Your task to perform on an android device: turn off smart reply in the gmail app Image 0: 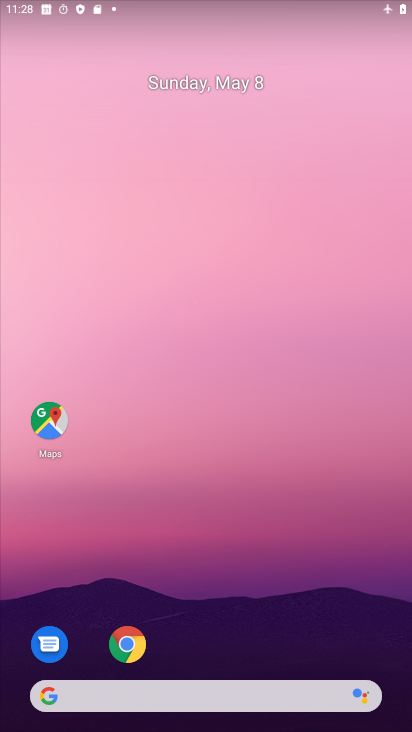
Step 0: drag from (180, 591) to (193, 192)
Your task to perform on an android device: turn off smart reply in the gmail app Image 1: 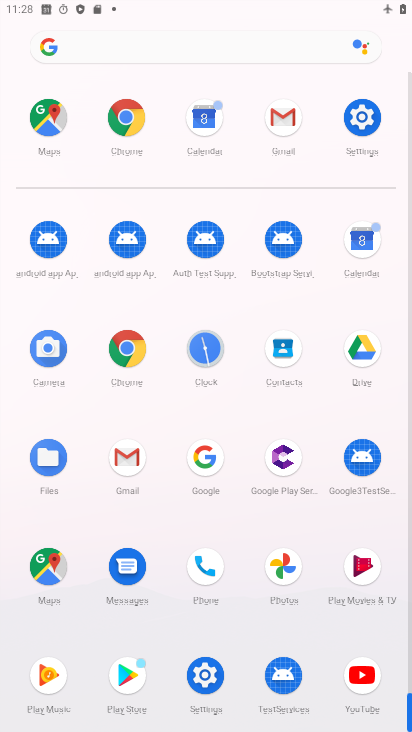
Step 1: click (136, 453)
Your task to perform on an android device: turn off smart reply in the gmail app Image 2: 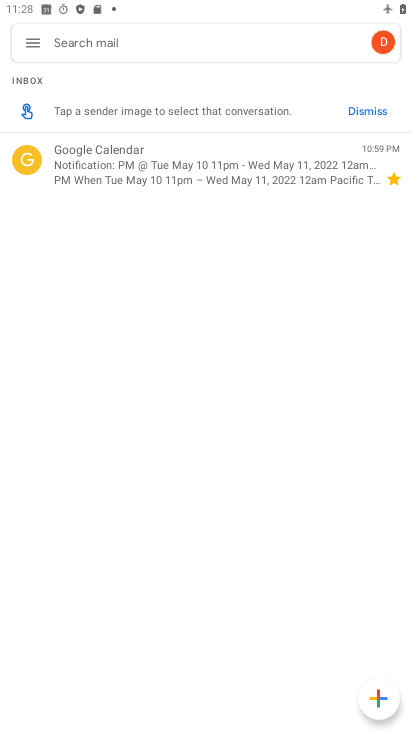
Step 2: click (39, 41)
Your task to perform on an android device: turn off smart reply in the gmail app Image 3: 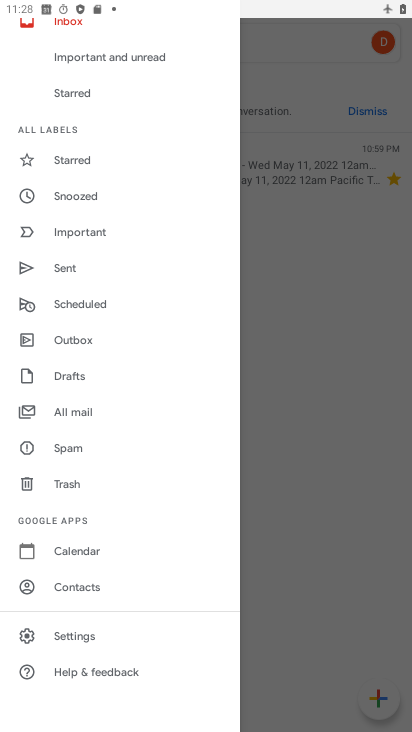
Step 3: click (80, 629)
Your task to perform on an android device: turn off smart reply in the gmail app Image 4: 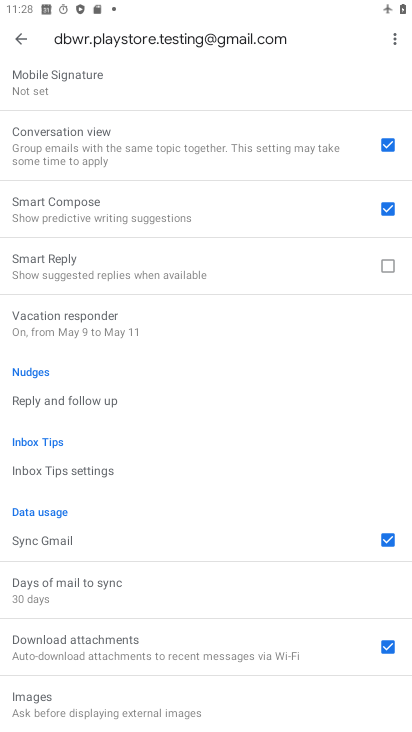
Step 4: task complete